Your task to perform on an android device: open app "Gmail" (install if not already installed) and enter user name: "undecidable@inbox.com" and password: "discouraging" Image 0: 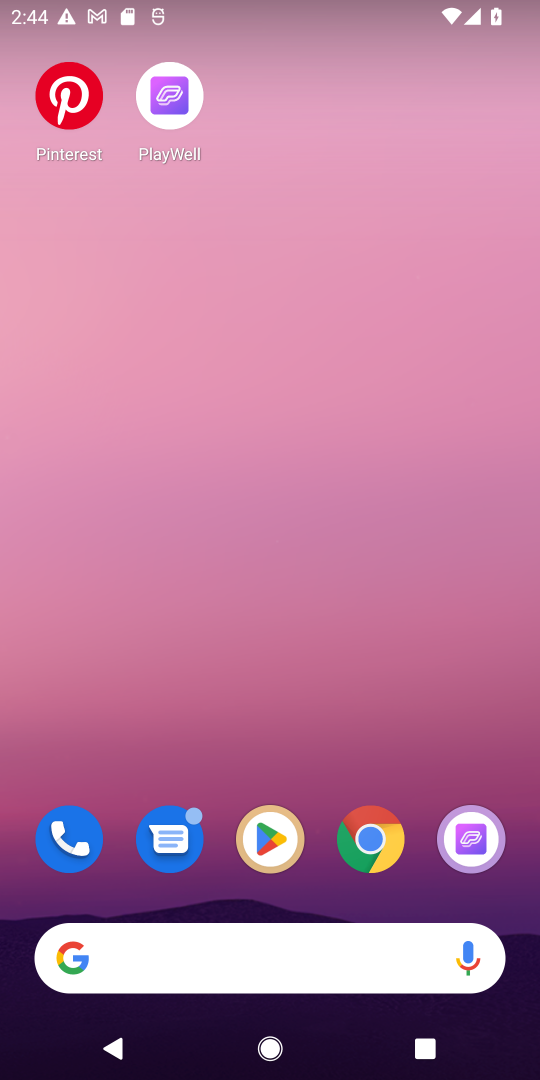
Step 0: click (224, 267)
Your task to perform on an android device: open app "Gmail" (install if not already installed) and enter user name: "undecidable@inbox.com" and password: "discouraging" Image 1: 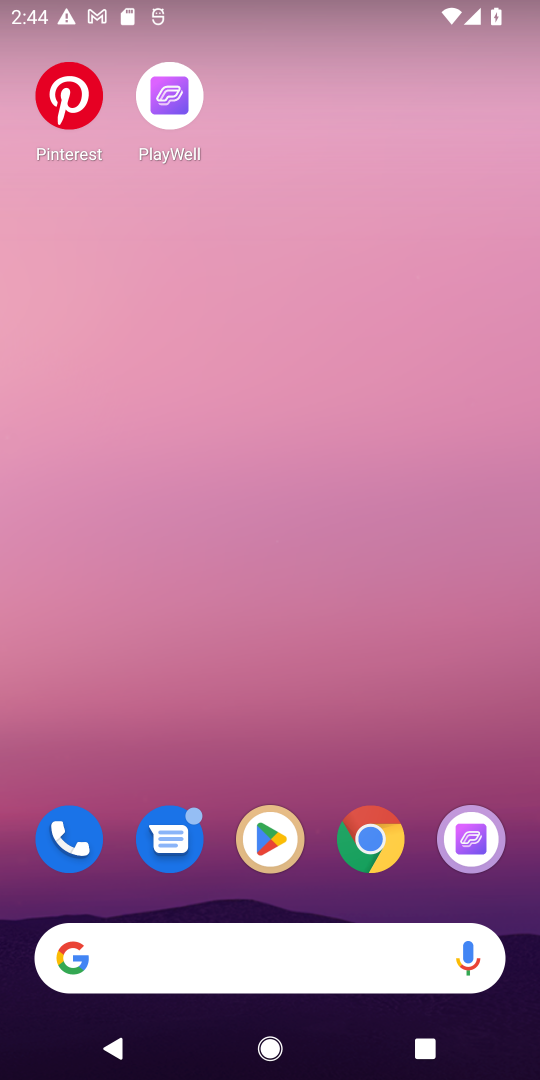
Step 1: drag from (288, 909) to (197, 206)
Your task to perform on an android device: open app "Gmail" (install if not already installed) and enter user name: "undecidable@inbox.com" and password: "discouraging" Image 2: 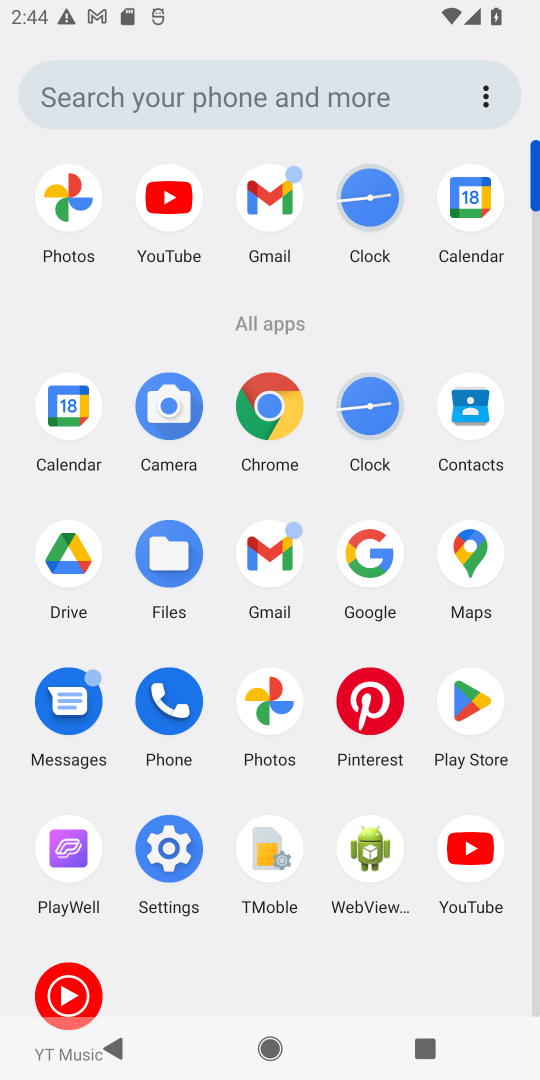
Step 2: click (280, 577)
Your task to perform on an android device: open app "Gmail" (install if not already installed) and enter user name: "undecidable@inbox.com" and password: "discouraging" Image 3: 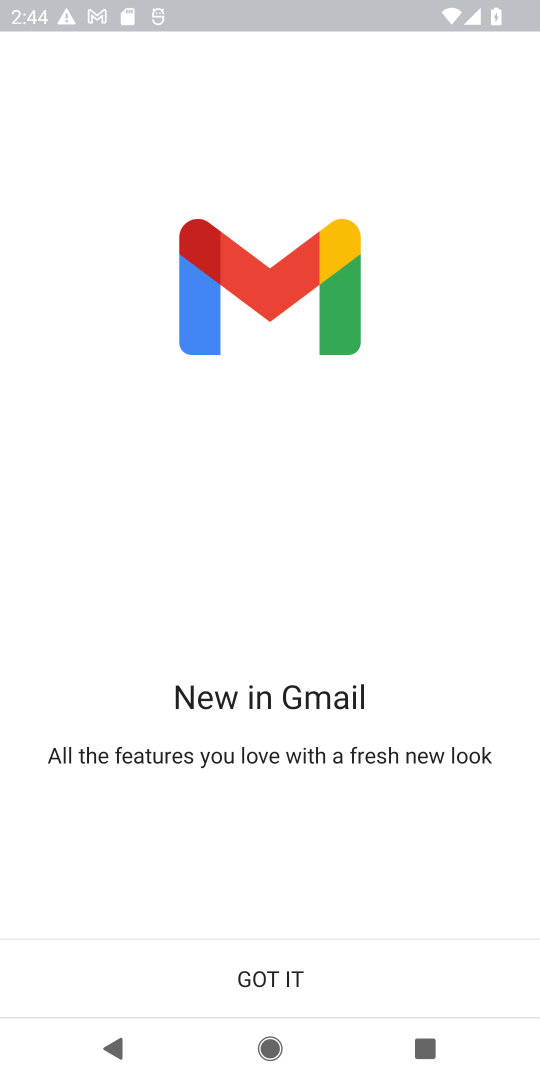
Step 3: click (302, 985)
Your task to perform on an android device: open app "Gmail" (install if not already installed) and enter user name: "undecidable@inbox.com" and password: "discouraging" Image 4: 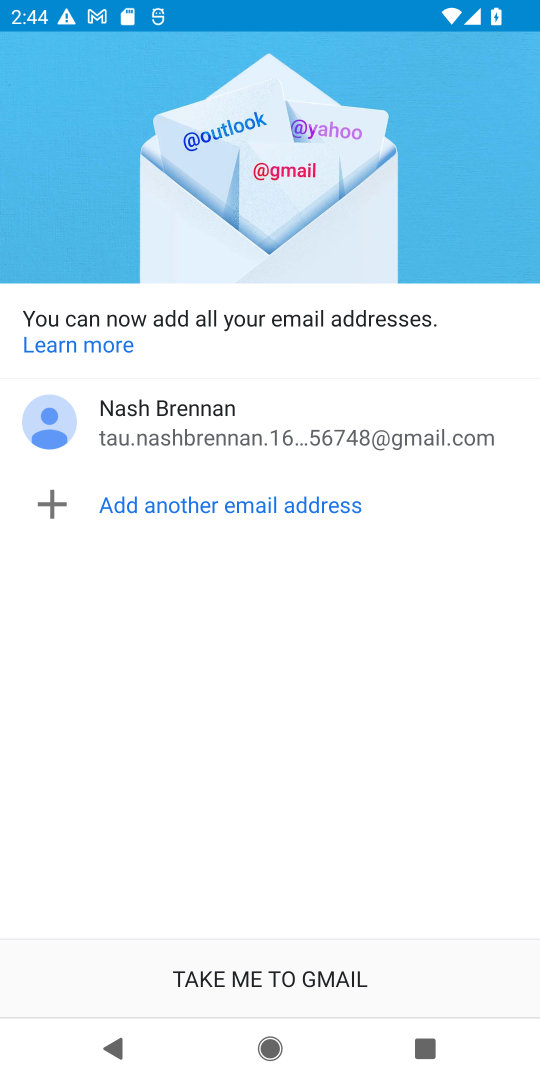
Step 4: click (171, 978)
Your task to perform on an android device: open app "Gmail" (install if not already installed) and enter user name: "undecidable@inbox.com" and password: "discouraging" Image 5: 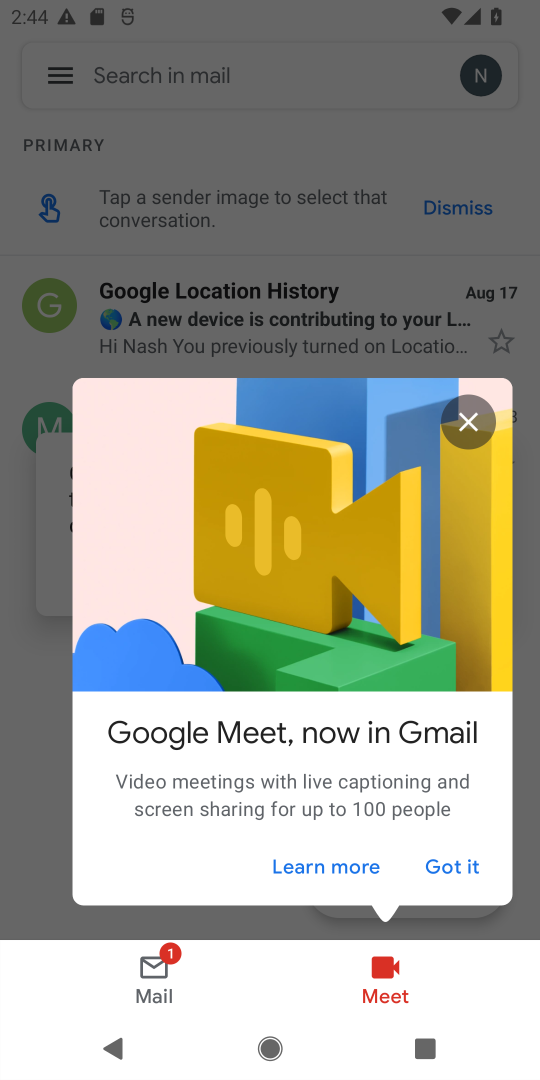
Step 5: task complete